Your task to perform on an android device: Clear the shopping cart on walmart.com. Add "razer blade" to the cart on walmart.com Image 0: 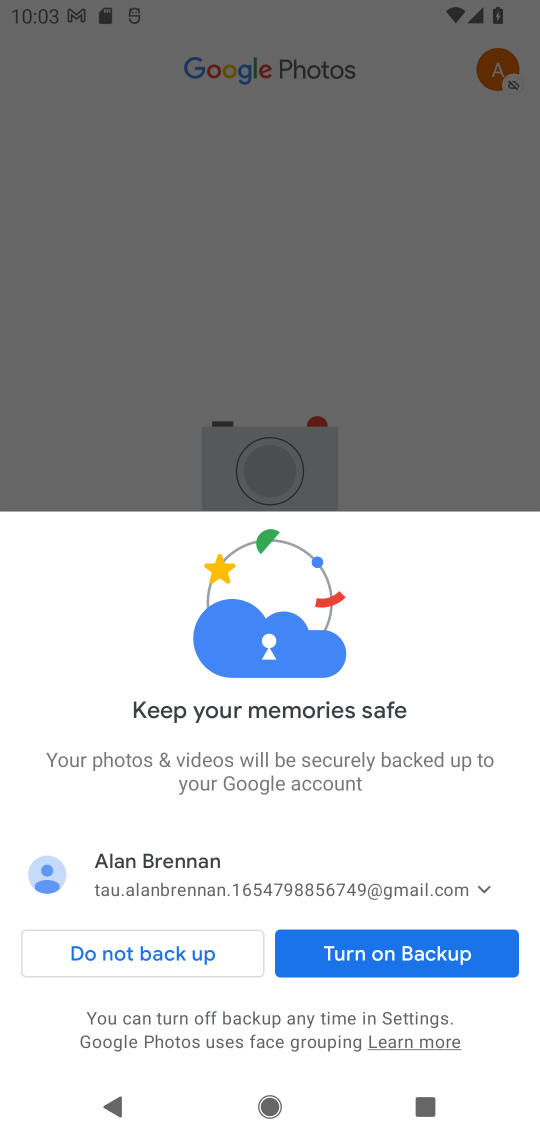
Step 0: press home button
Your task to perform on an android device: Clear the shopping cart on walmart.com. Add "razer blade" to the cart on walmart.com Image 1: 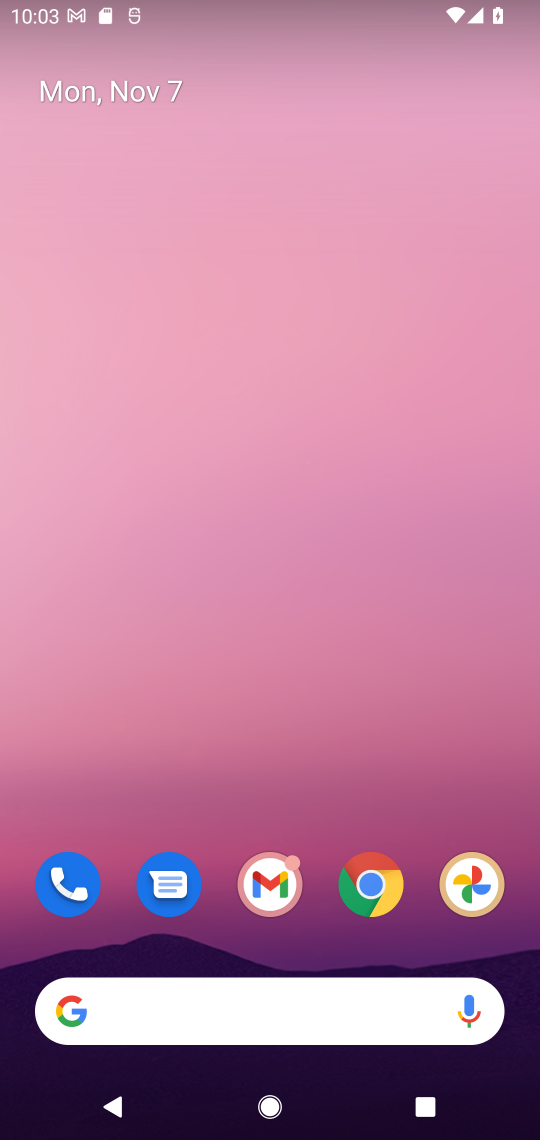
Step 1: click (385, 881)
Your task to perform on an android device: Clear the shopping cart on walmart.com. Add "razer blade" to the cart on walmart.com Image 2: 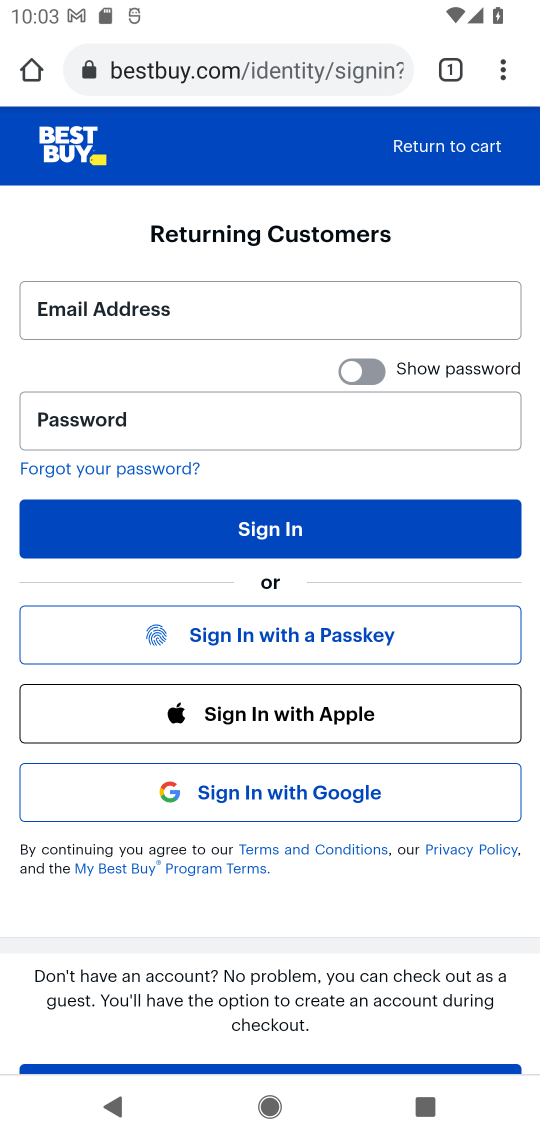
Step 2: click (25, 61)
Your task to perform on an android device: Clear the shopping cart on walmart.com. Add "razer blade" to the cart on walmart.com Image 3: 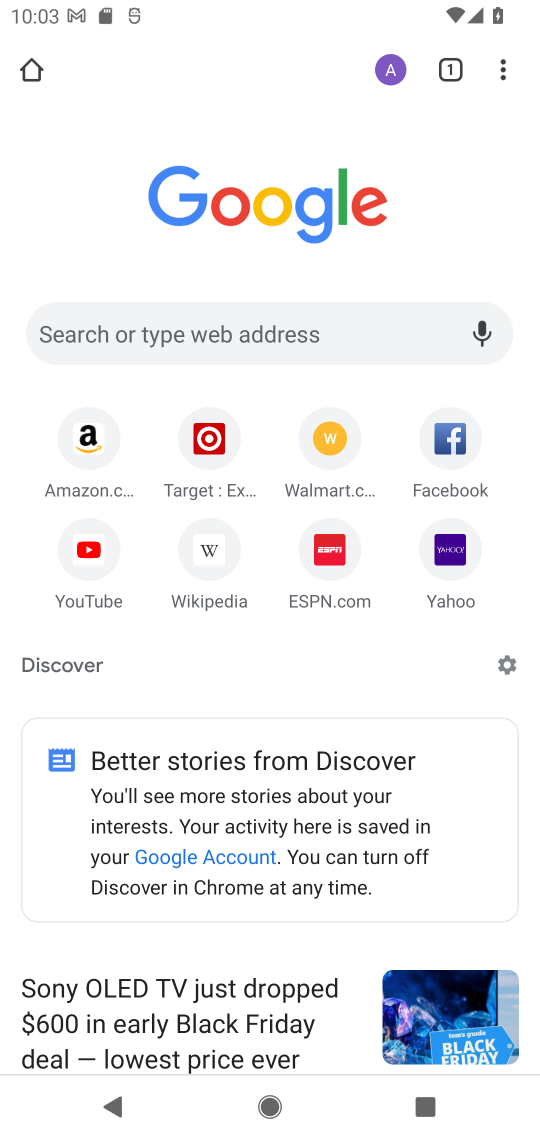
Step 3: click (286, 329)
Your task to perform on an android device: Clear the shopping cart on walmart.com. Add "razer blade" to the cart on walmart.com Image 4: 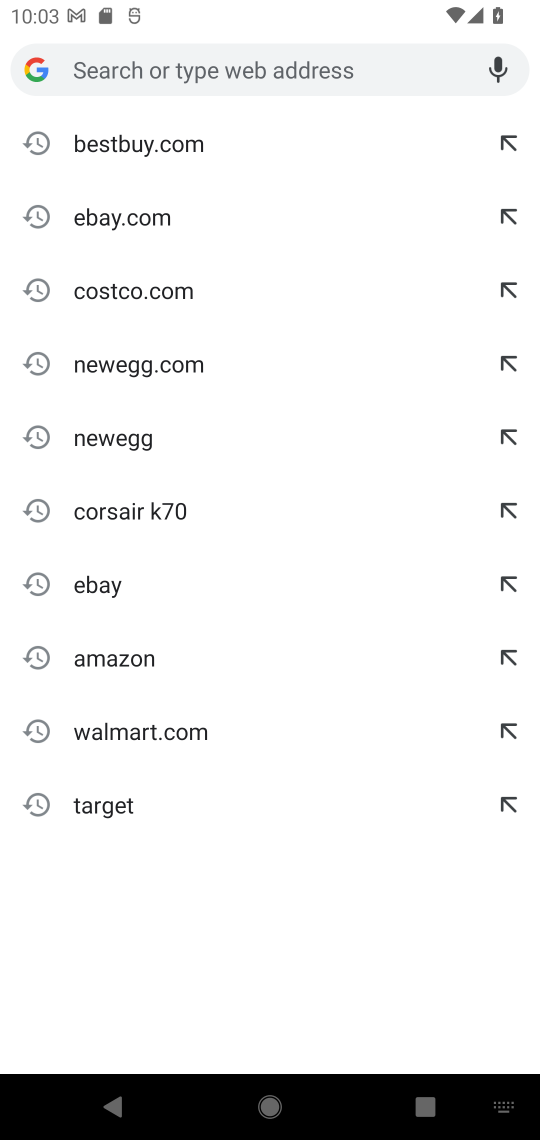
Step 4: click (184, 727)
Your task to perform on an android device: Clear the shopping cart on walmart.com. Add "razer blade" to the cart on walmart.com Image 5: 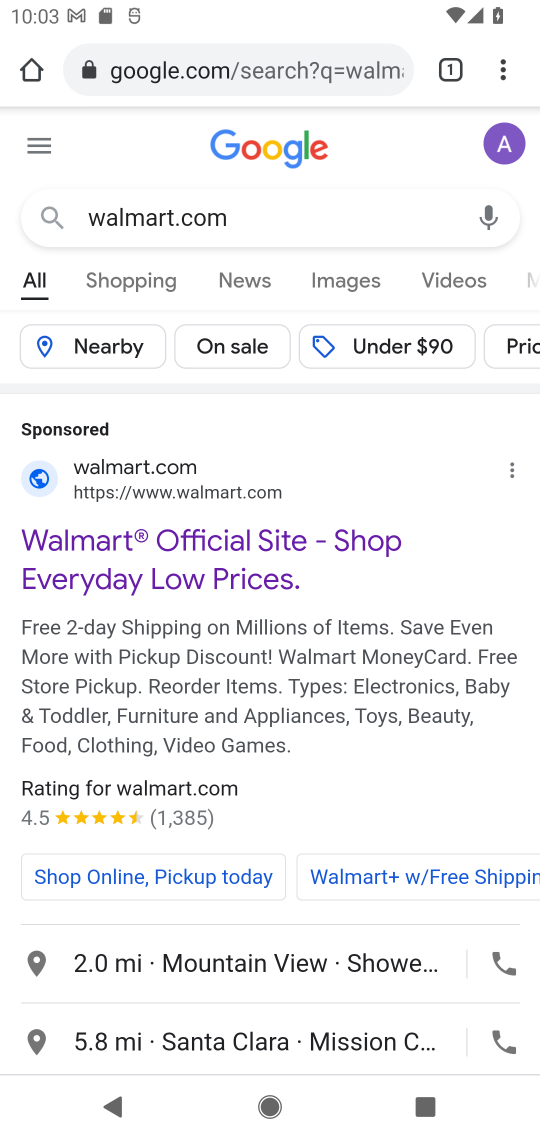
Step 5: click (201, 497)
Your task to perform on an android device: Clear the shopping cart on walmart.com. Add "razer blade" to the cart on walmart.com Image 6: 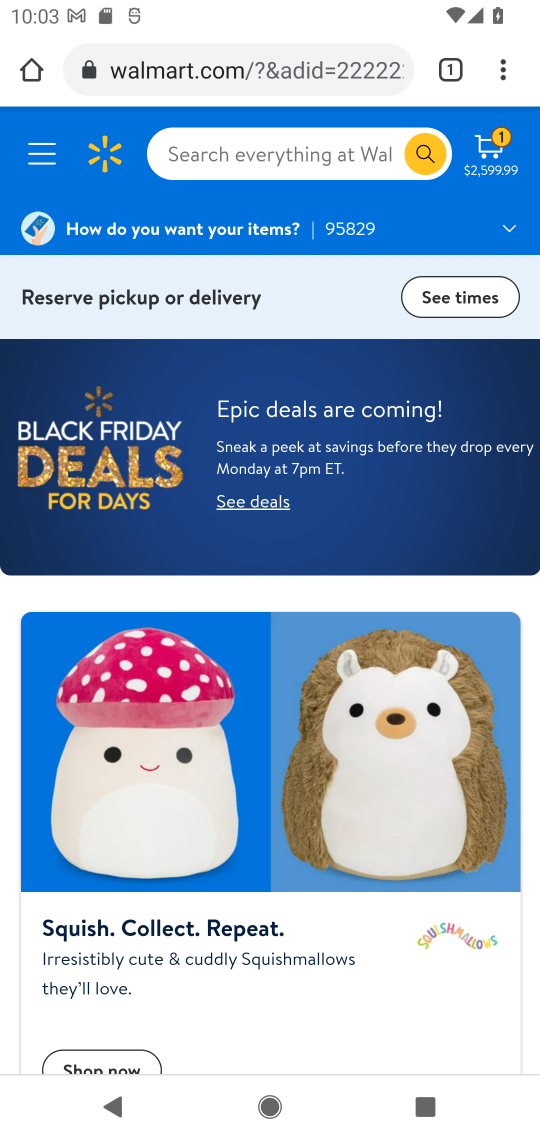
Step 6: click (292, 152)
Your task to perform on an android device: Clear the shopping cart on walmart.com. Add "razer blade" to the cart on walmart.com Image 7: 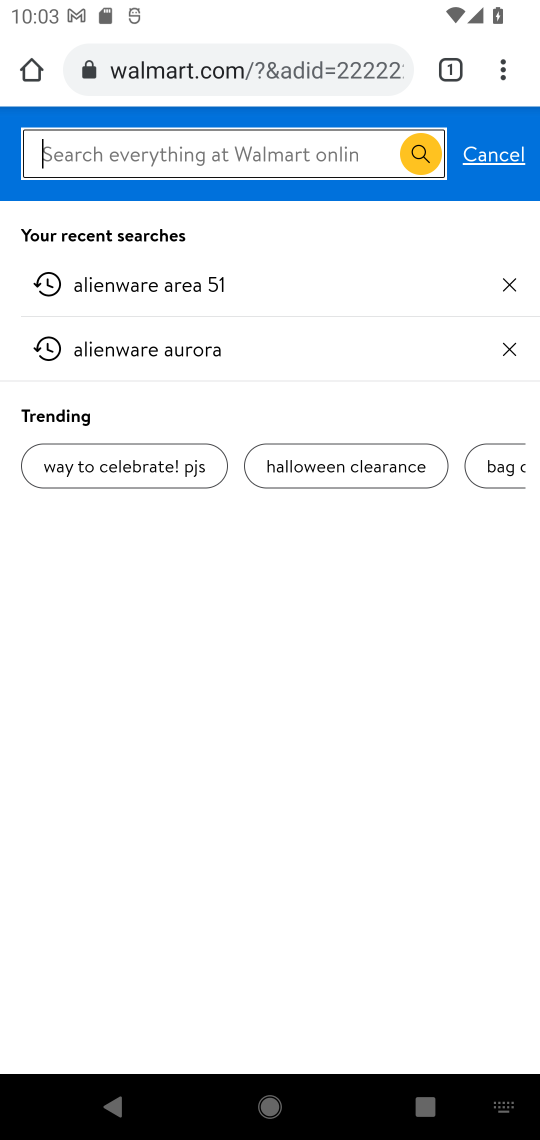
Step 7: type "razer blade"
Your task to perform on an android device: Clear the shopping cart on walmart.com. Add "razer blade" to the cart on walmart.com Image 8: 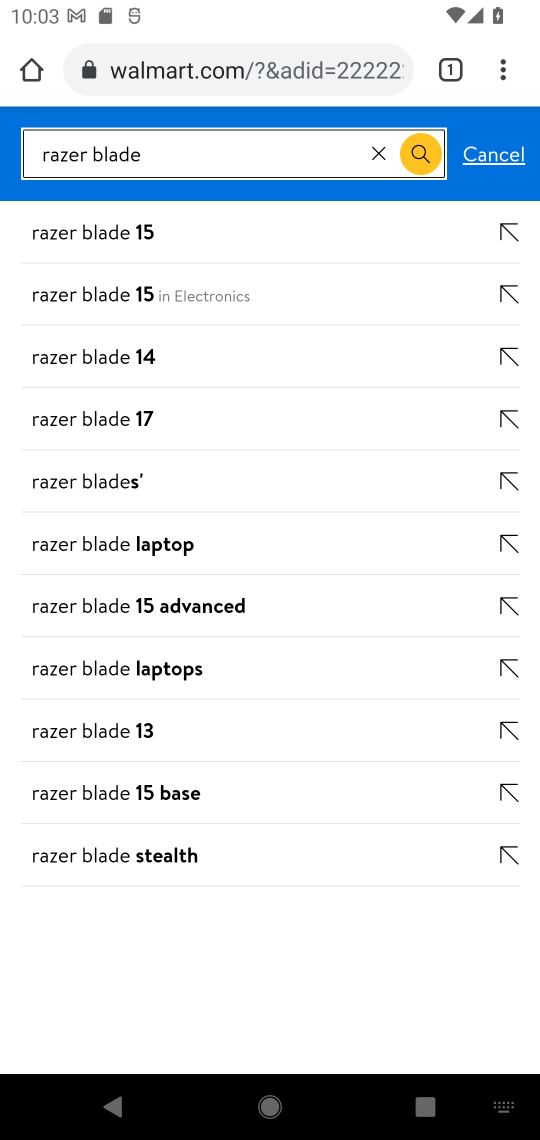
Step 8: click (66, 477)
Your task to perform on an android device: Clear the shopping cart on walmart.com. Add "razer blade" to the cart on walmart.com Image 9: 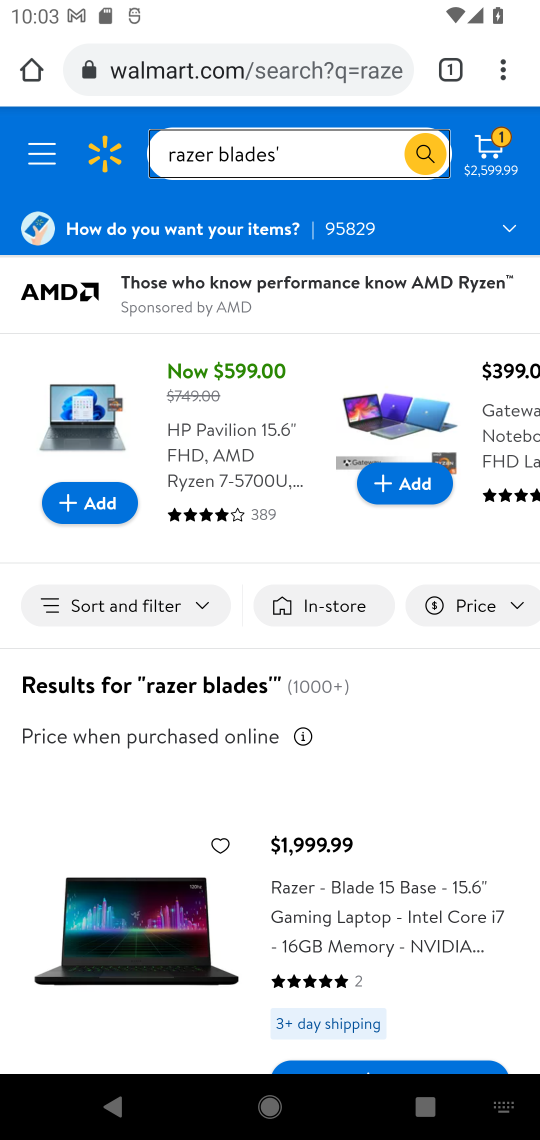
Step 9: click (171, 906)
Your task to perform on an android device: Clear the shopping cart on walmart.com. Add "razer blade" to the cart on walmart.com Image 10: 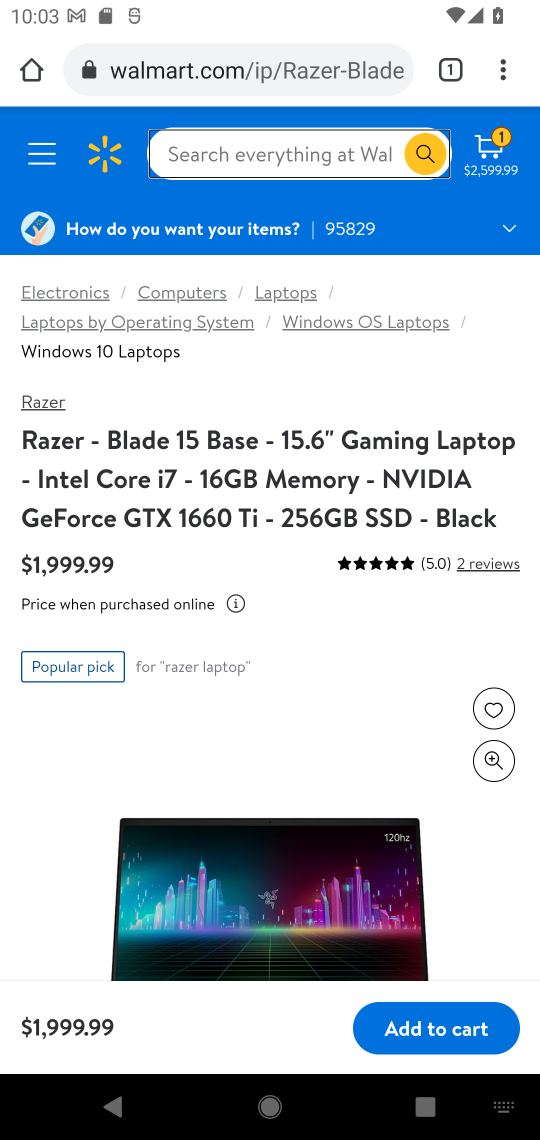
Step 10: drag from (372, 671) to (352, 263)
Your task to perform on an android device: Clear the shopping cart on walmart.com. Add "razer blade" to the cart on walmart.com Image 11: 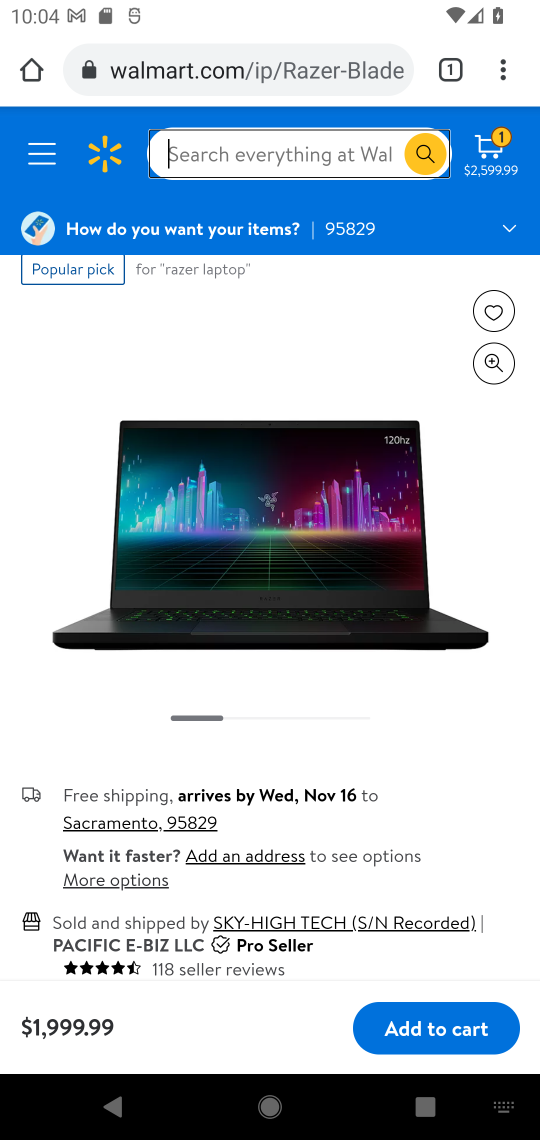
Step 11: click (470, 1021)
Your task to perform on an android device: Clear the shopping cart on walmart.com. Add "razer blade" to the cart on walmart.com Image 12: 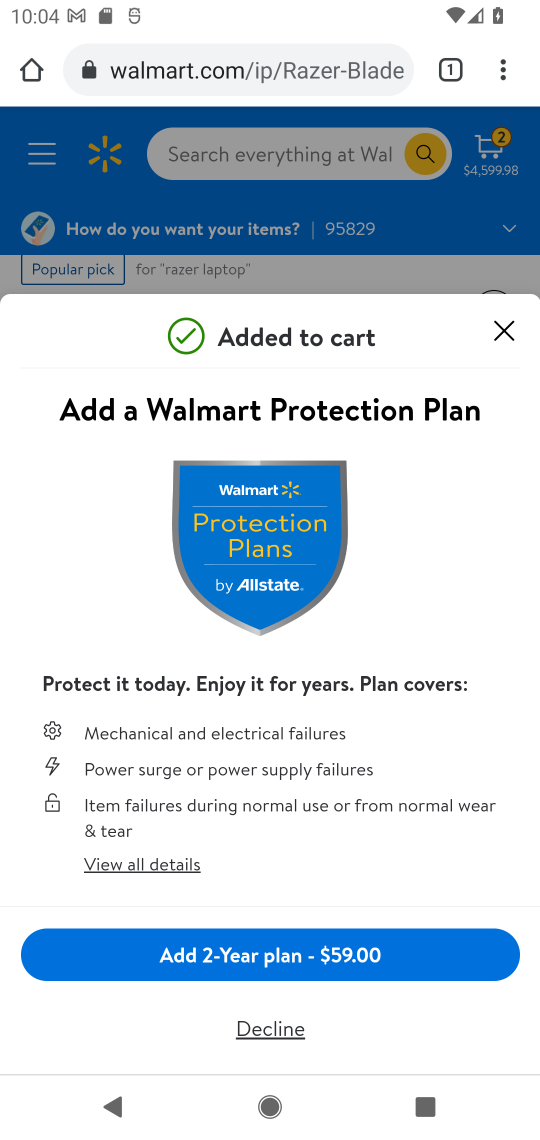
Step 12: click (496, 334)
Your task to perform on an android device: Clear the shopping cart on walmart.com. Add "razer blade" to the cart on walmart.com Image 13: 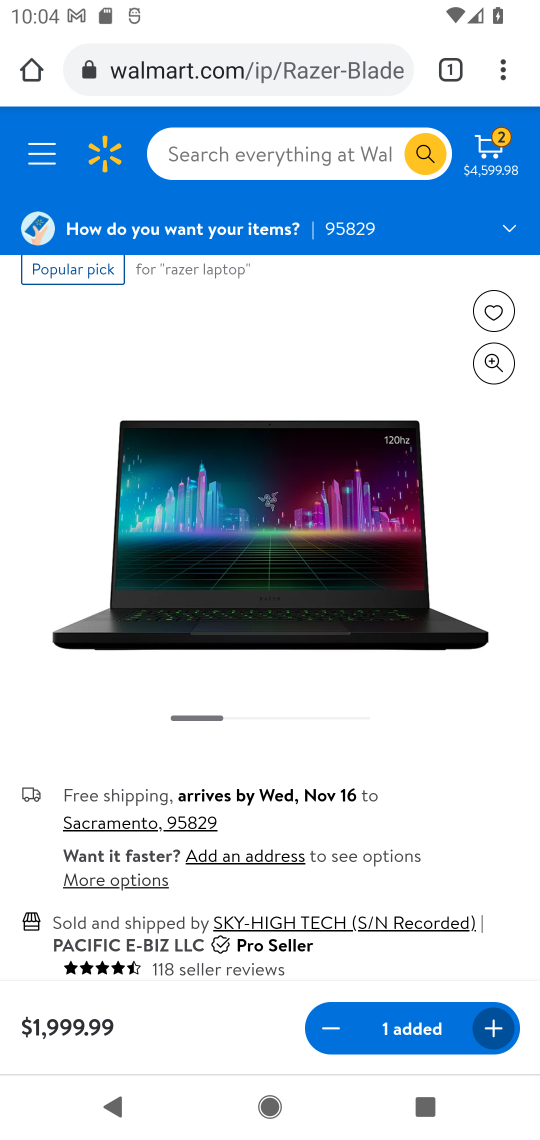
Step 13: task complete